Your task to perform on an android device: Turn on the flashlight Image 0: 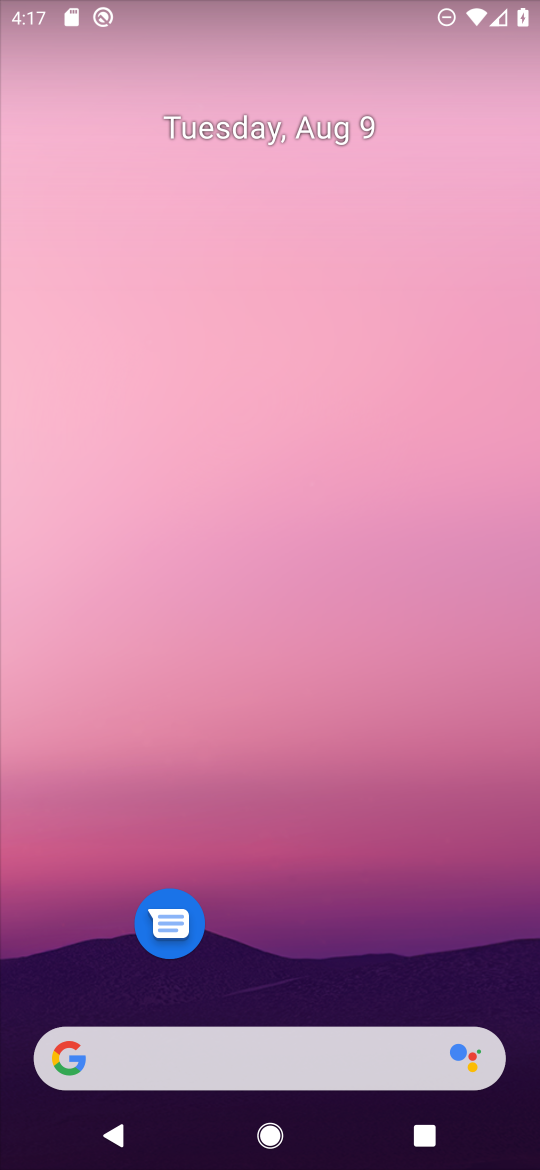
Step 0: drag from (311, 739) to (389, 18)
Your task to perform on an android device: Turn on the flashlight Image 1: 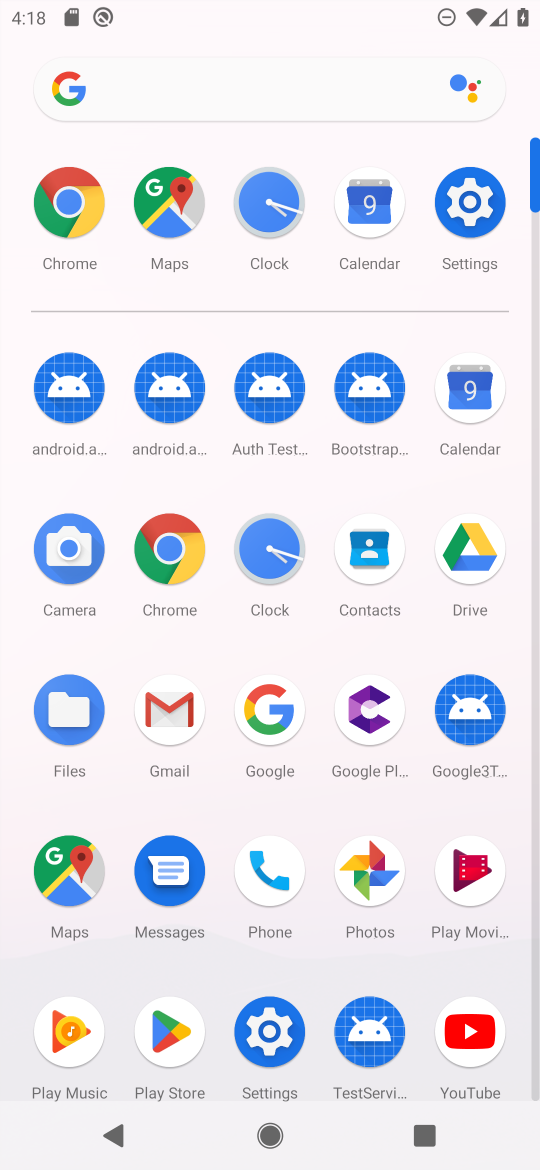
Step 1: click (473, 202)
Your task to perform on an android device: Turn on the flashlight Image 2: 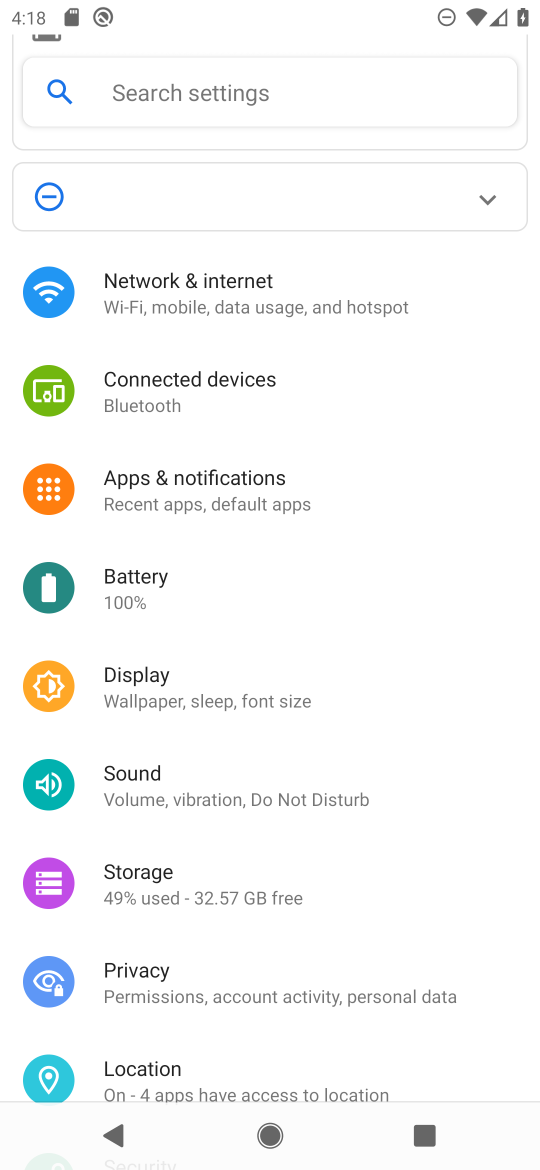
Step 2: click (212, 80)
Your task to perform on an android device: Turn on the flashlight Image 3: 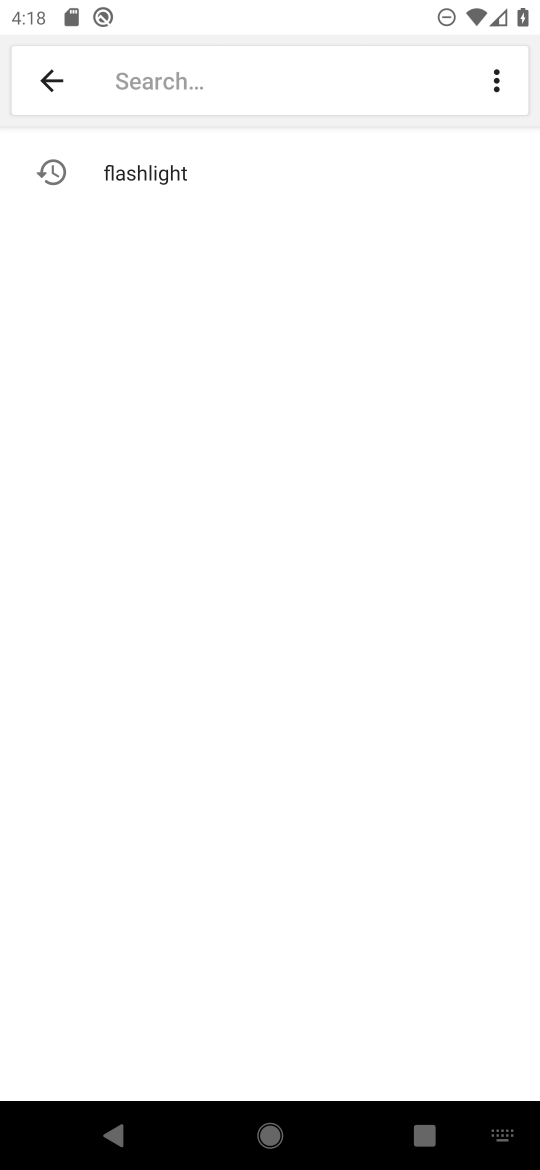
Step 3: click (207, 167)
Your task to perform on an android device: Turn on the flashlight Image 4: 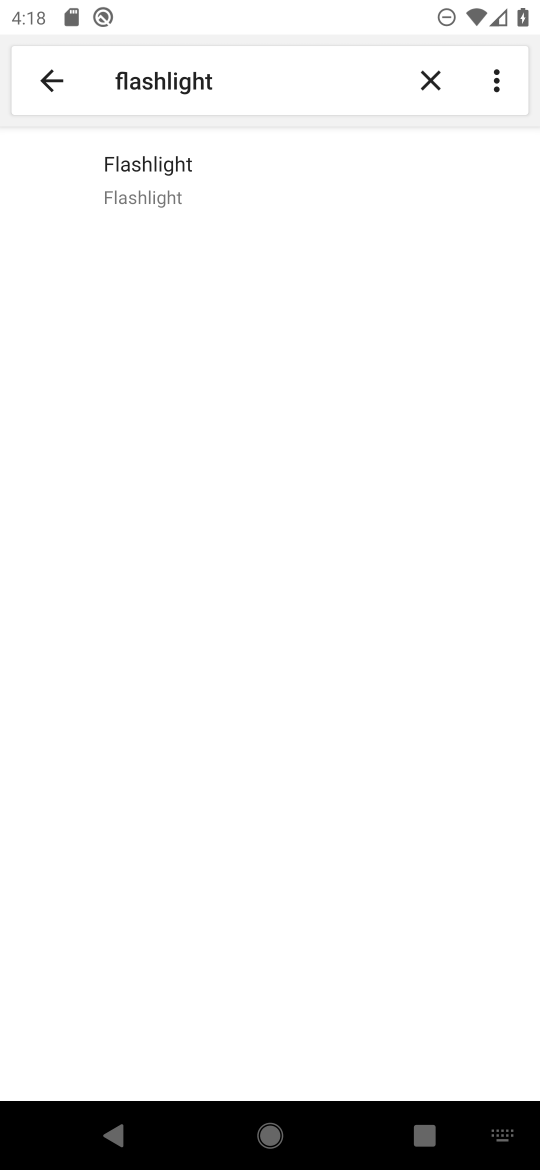
Step 4: click (178, 174)
Your task to perform on an android device: Turn on the flashlight Image 5: 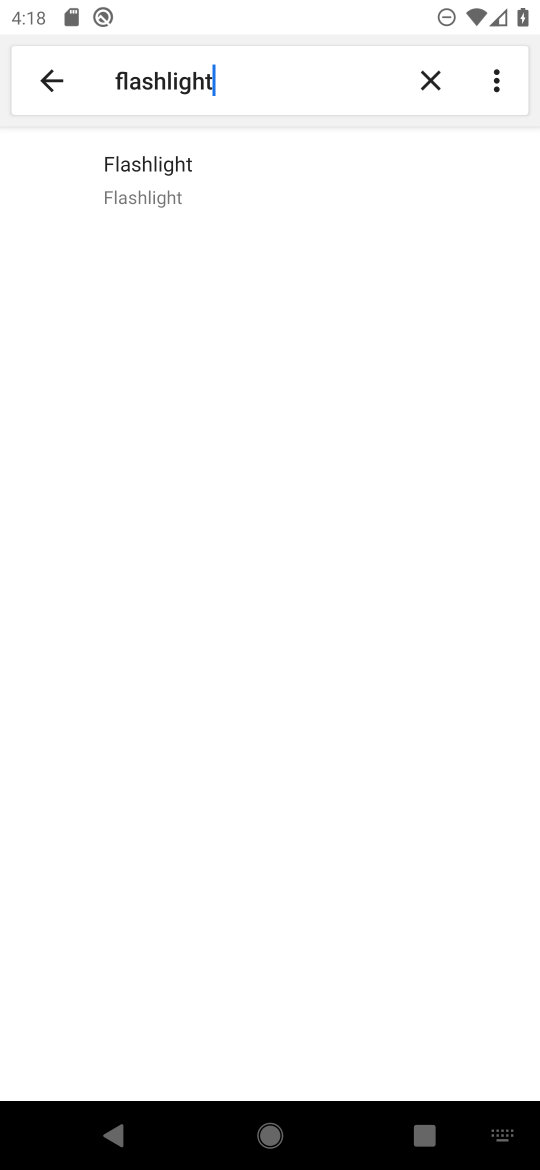
Step 5: click (152, 171)
Your task to perform on an android device: Turn on the flashlight Image 6: 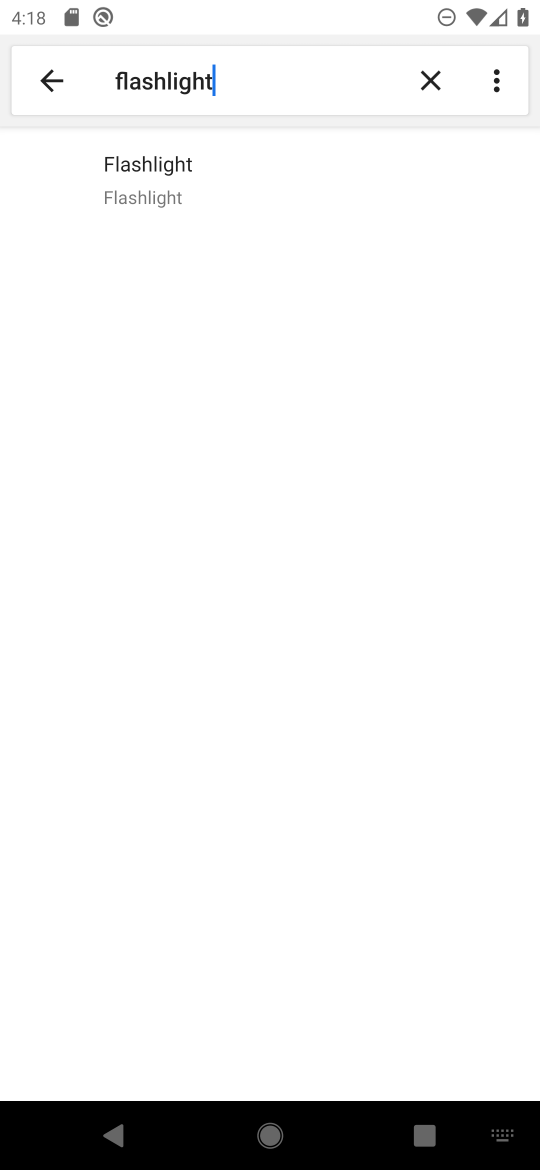
Step 6: task complete